Your task to perform on an android device: toggle airplane mode Image 0: 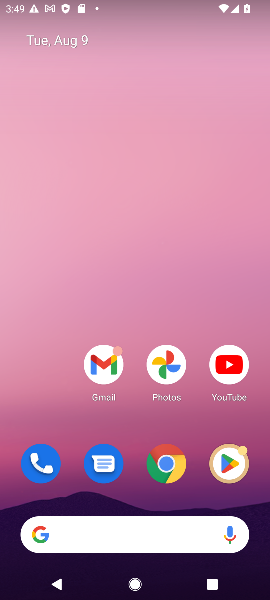
Step 0: drag from (153, 521) to (64, 230)
Your task to perform on an android device: toggle airplane mode Image 1: 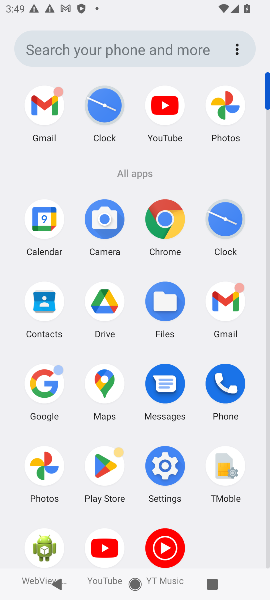
Step 1: click (173, 472)
Your task to perform on an android device: toggle airplane mode Image 2: 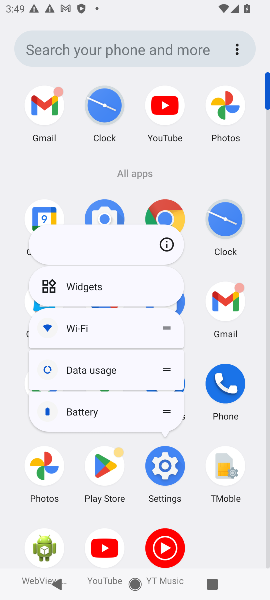
Step 2: click (173, 472)
Your task to perform on an android device: toggle airplane mode Image 3: 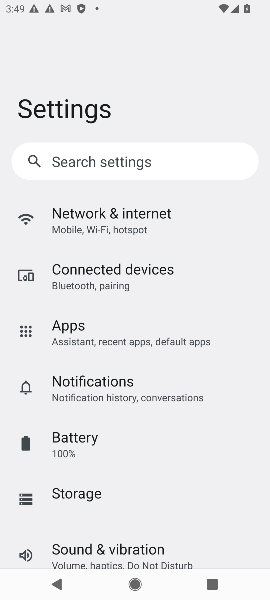
Step 3: click (84, 227)
Your task to perform on an android device: toggle airplane mode Image 4: 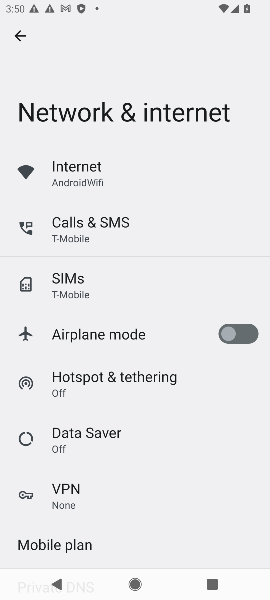
Step 4: click (255, 332)
Your task to perform on an android device: toggle airplane mode Image 5: 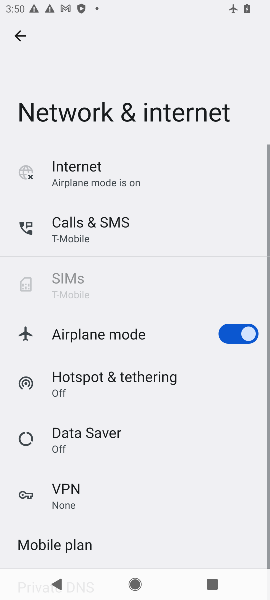
Step 5: task complete